Your task to perform on an android device: Add usb-c to the cart on costco, then select checkout. Image 0: 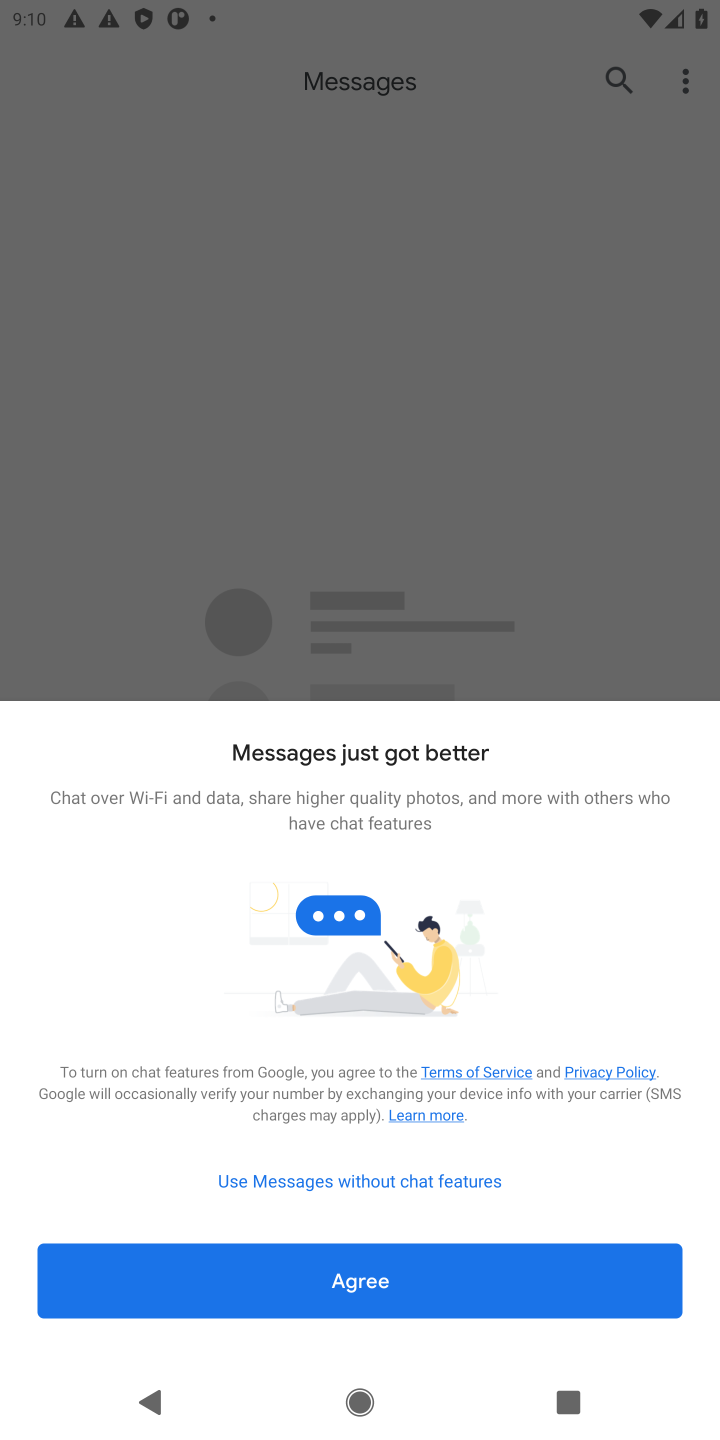
Step 0: press home button
Your task to perform on an android device: Add usb-c to the cart on costco, then select checkout. Image 1: 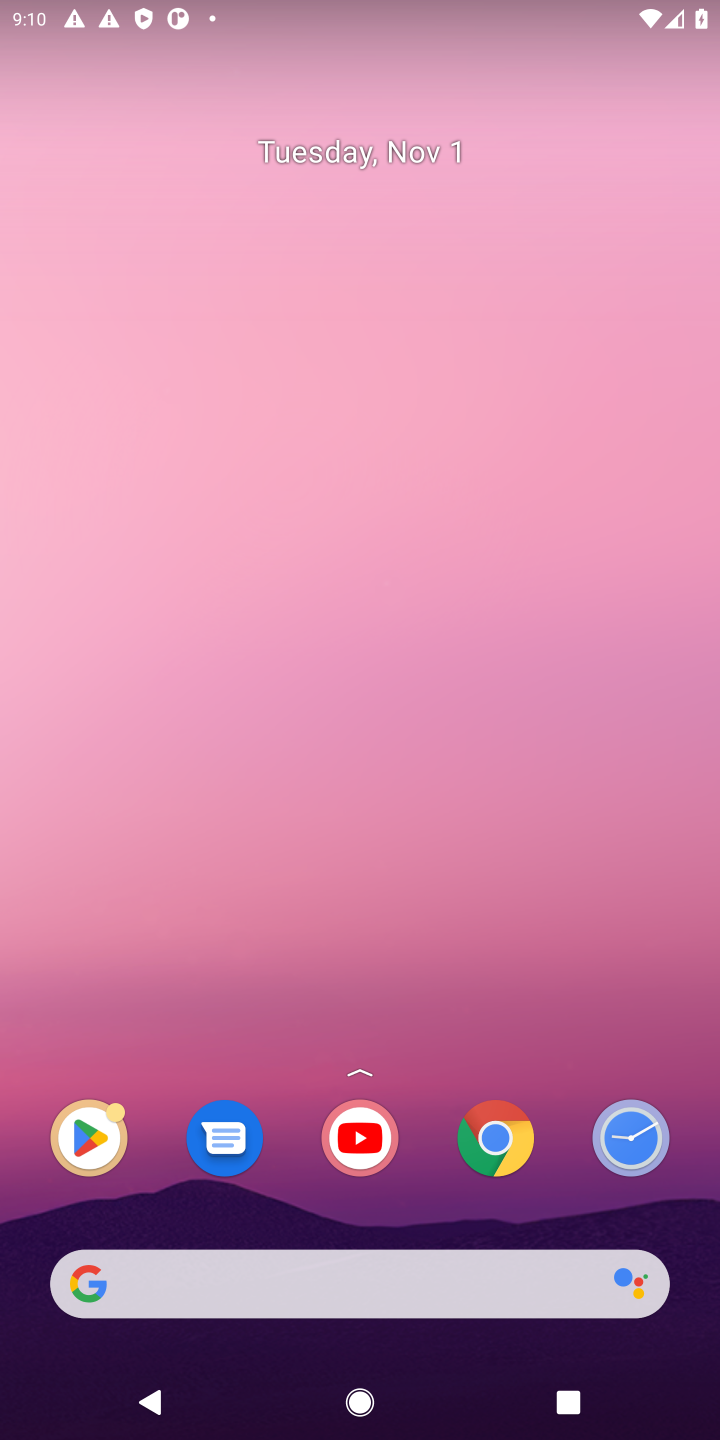
Step 1: click (499, 1143)
Your task to perform on an android device: Add usb-c to the cart on costco, then select checkout. Image 2: 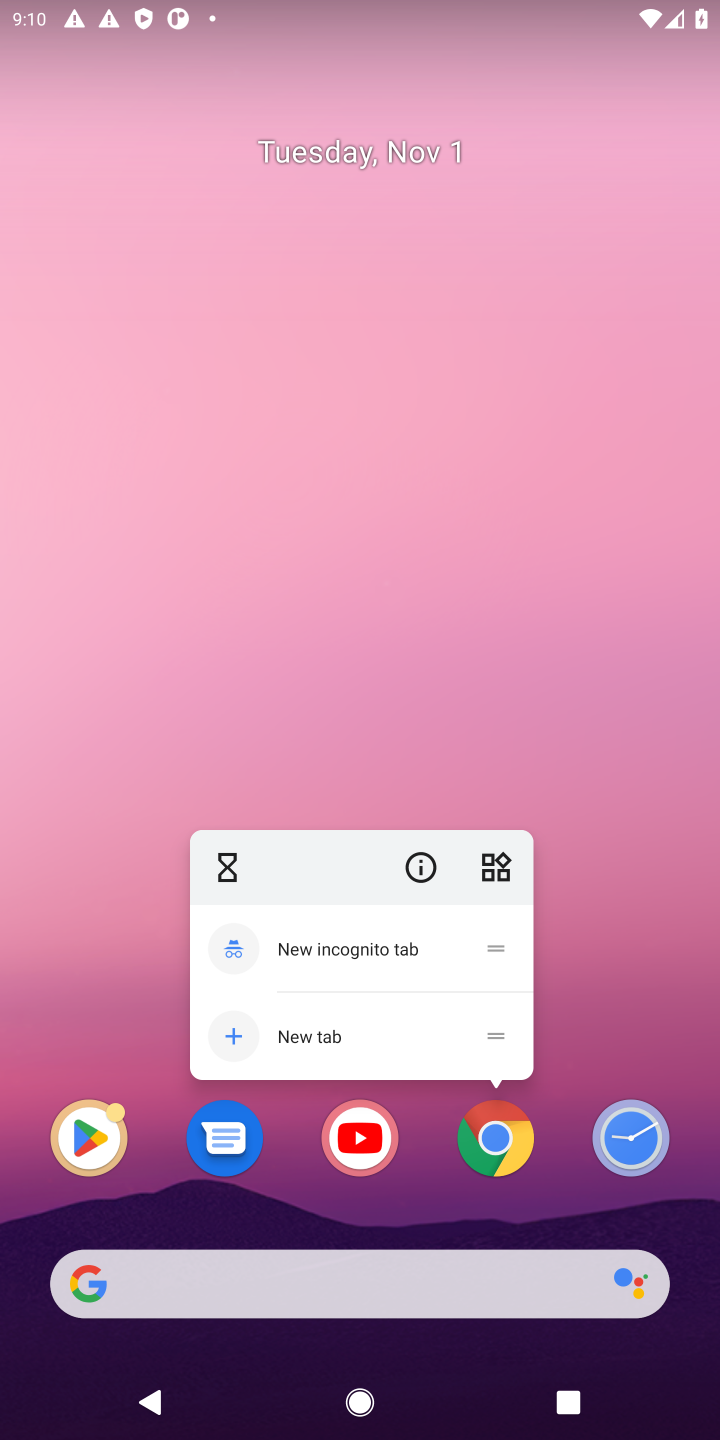
Step 2: click (499, 1143)
Your task to perform on an android device: Add usb-c to the cart on costco, then select checkout. Image 3: 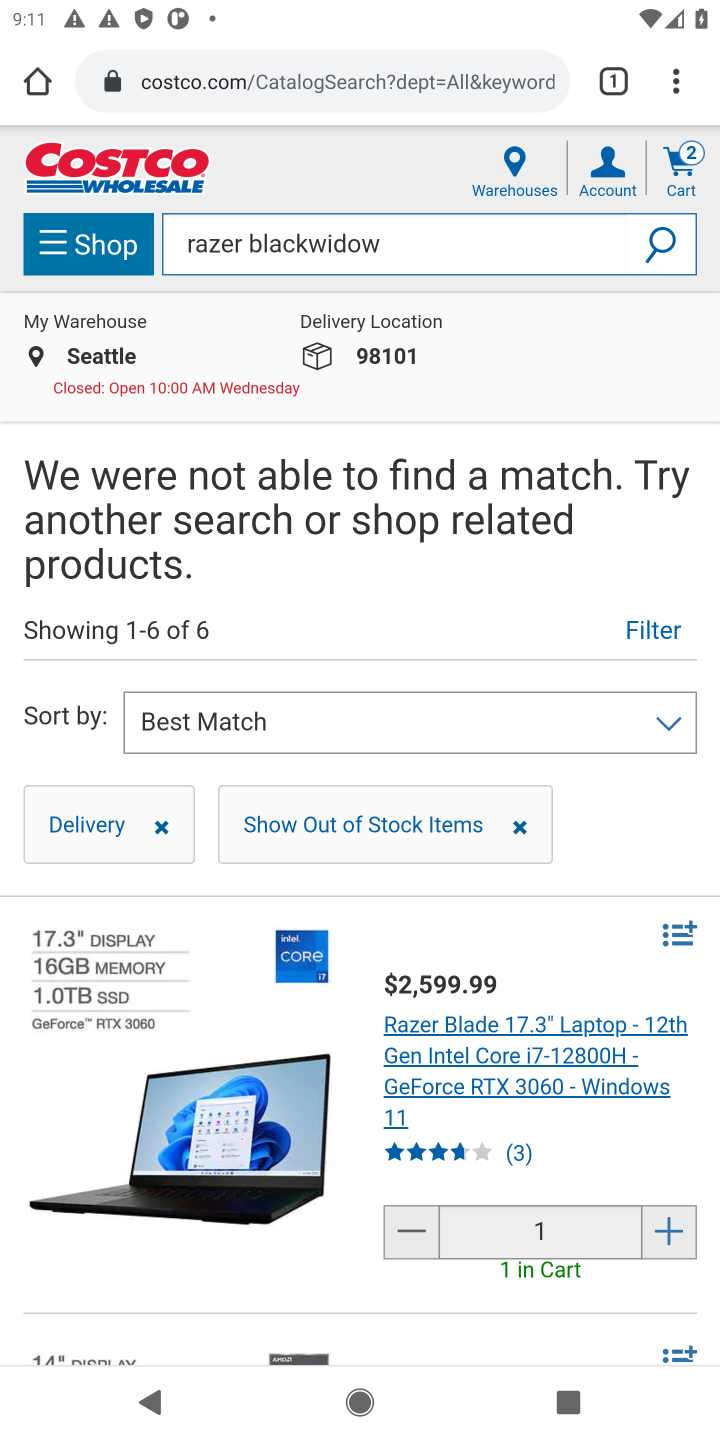
Step 3: task complete